Your task to perform on an android device: check storage Image 0: 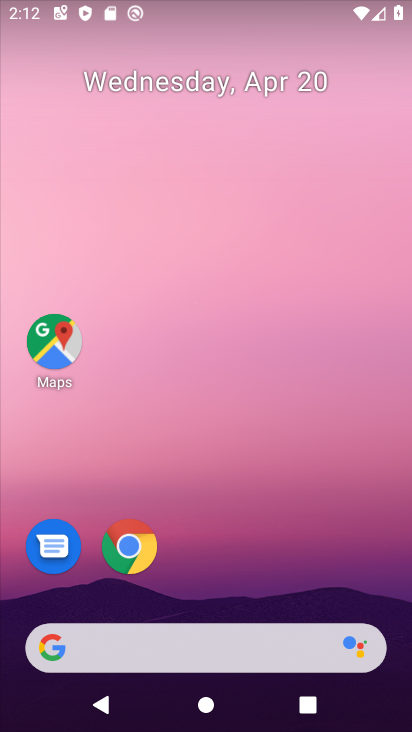
Step 0: drag from (302, 676) to (259, 178)
Your task to perform on an android device: check storage Image 1: 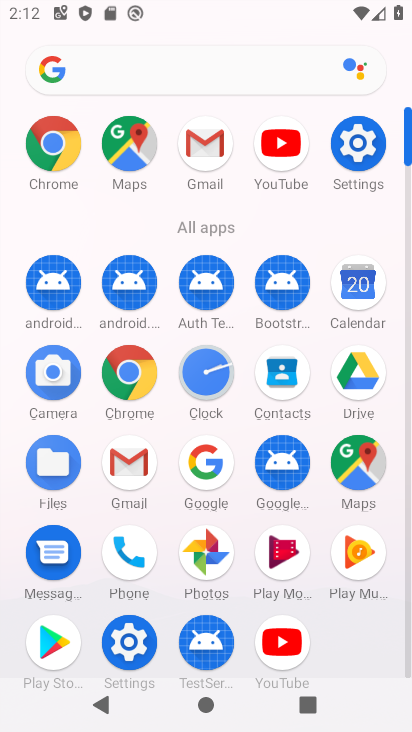
Step 1: click (345, 151)
Your task to perform on an android device: check storage Image 2: 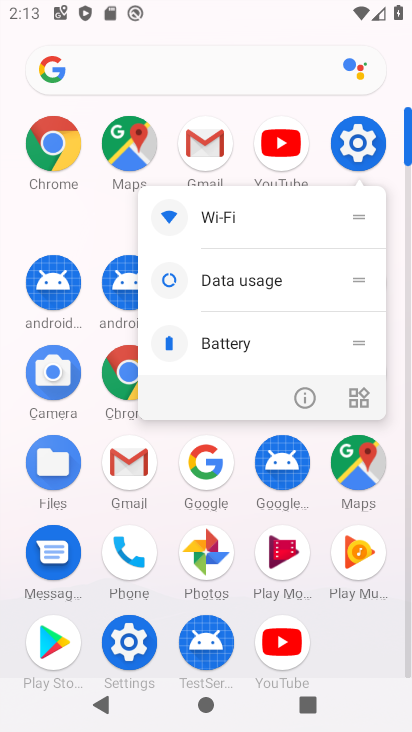
Step 2: click (342, 154)
Your task to perform on an android device: check storage Image 3: 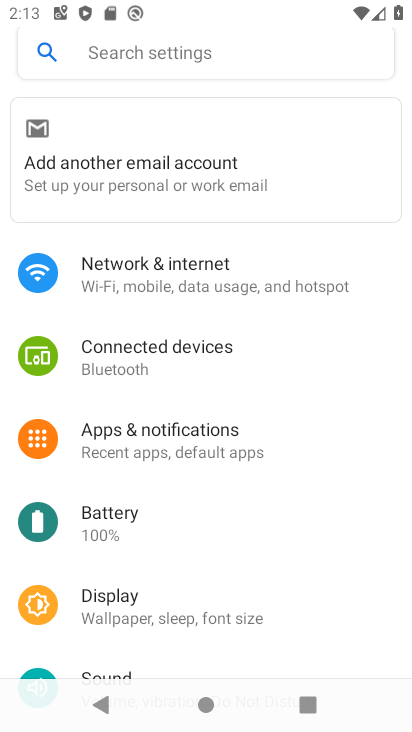
Step 3: click (165, 63)
Your task to perform on an android device: check storage Image 4: 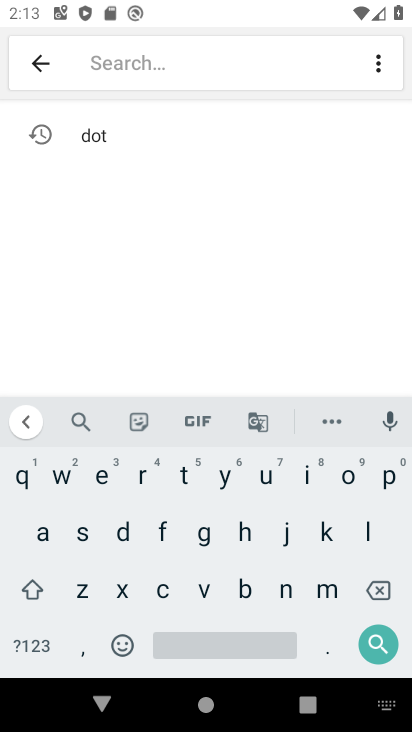
Step 4: click (84, 533)
Your task to perform on an android device: check storage Image 5: 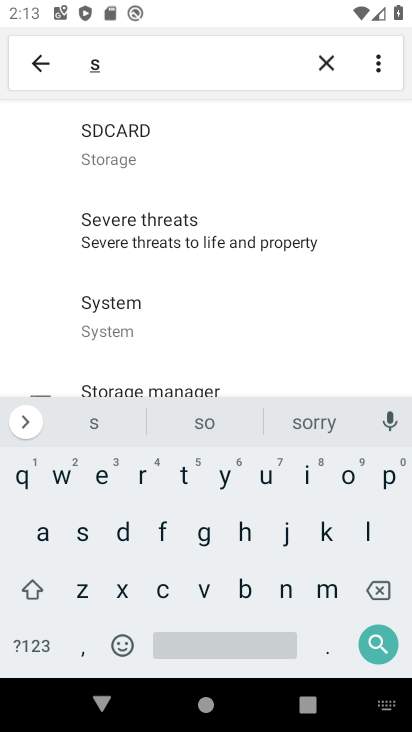
Step 5: click (180, 476)
Your task to perform on an android device: check storage Image 6: 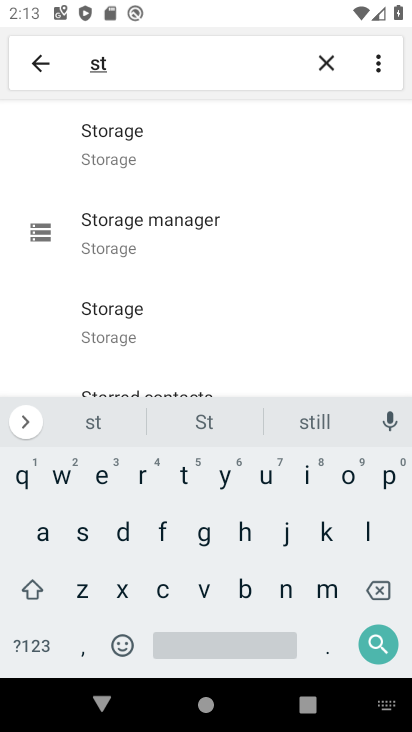
Step 6: click (121, 157)
Your task to perform on an android device: check storage Image 7: 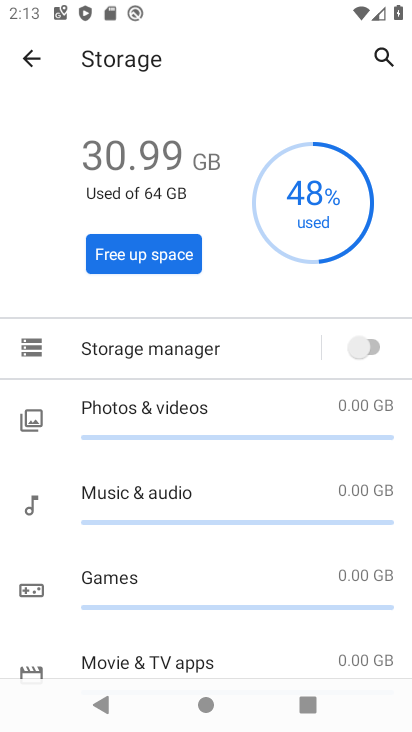
Step 7: task complete